Your task to perform on an android device: delete browsing data in the chrome app Image 0: 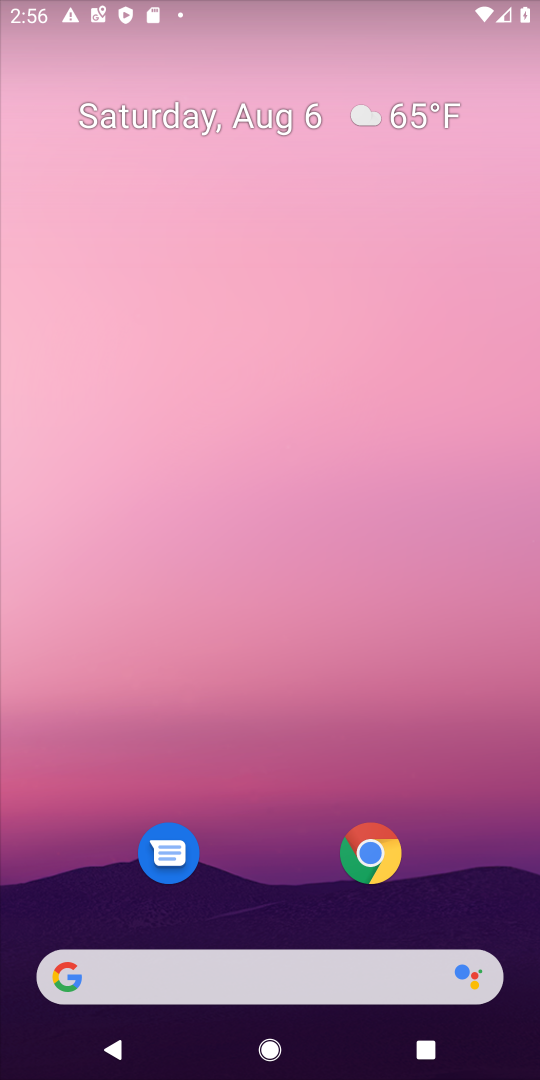
Step 0: press back button
Your task to perform on an android device: delete browsing data in the chrome app Image 1: 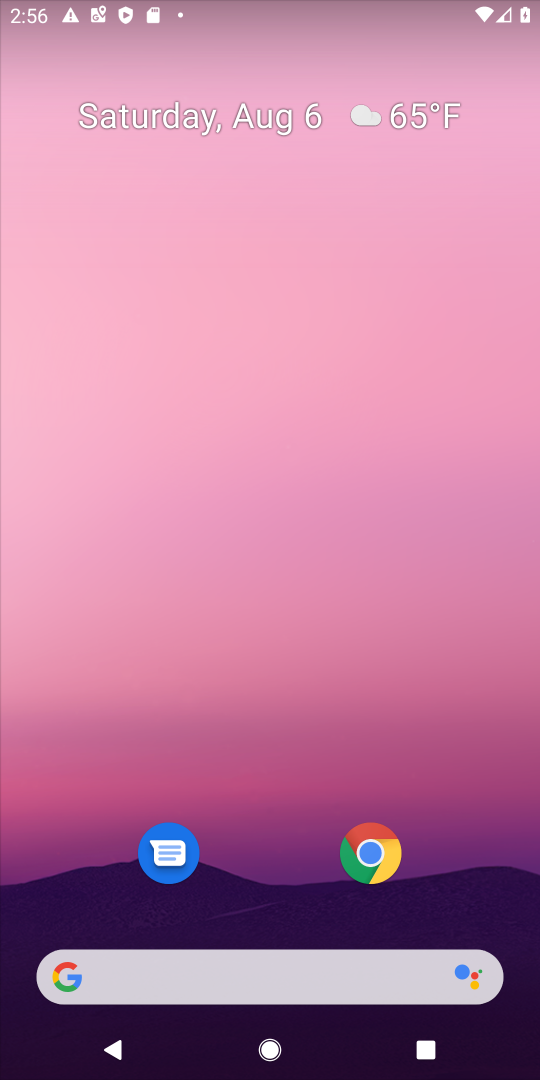
Step 1: click (378, 846)
Your task to perform on an android device: delete browsing data in the chrome app Image 2: 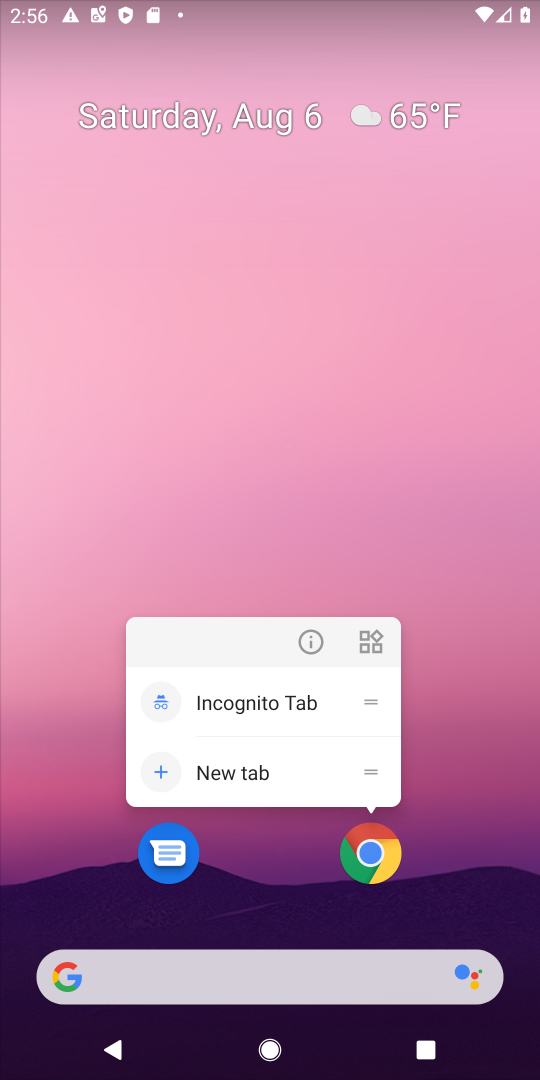
Step 2: click (378, 846)
Your task to perform on an android device: delete browsing data in the chrome app Image 3: 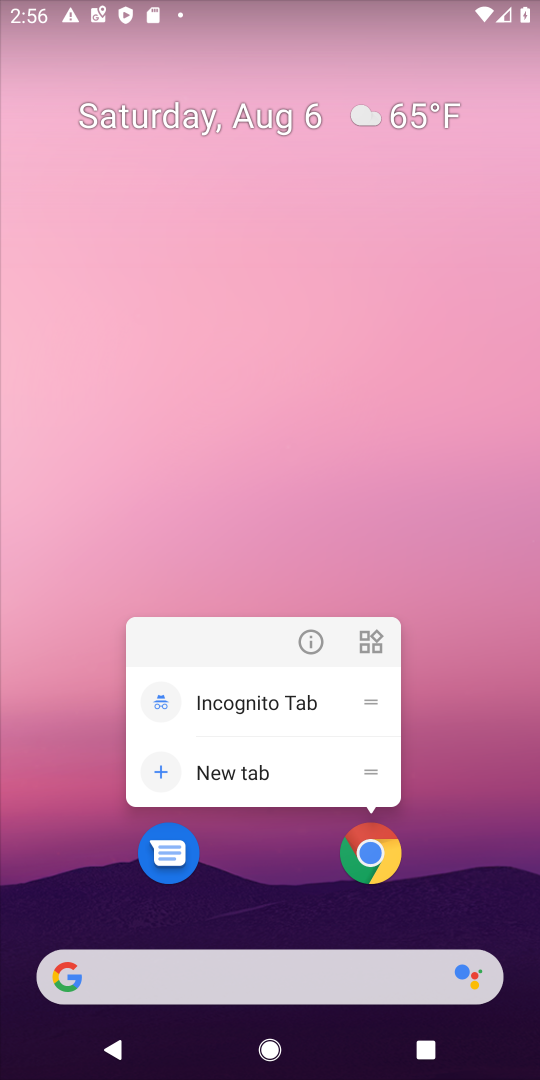
Step 3: click (373, 855)
Your task to perform on an android device: delete browsing data in the chrome app Image 4: 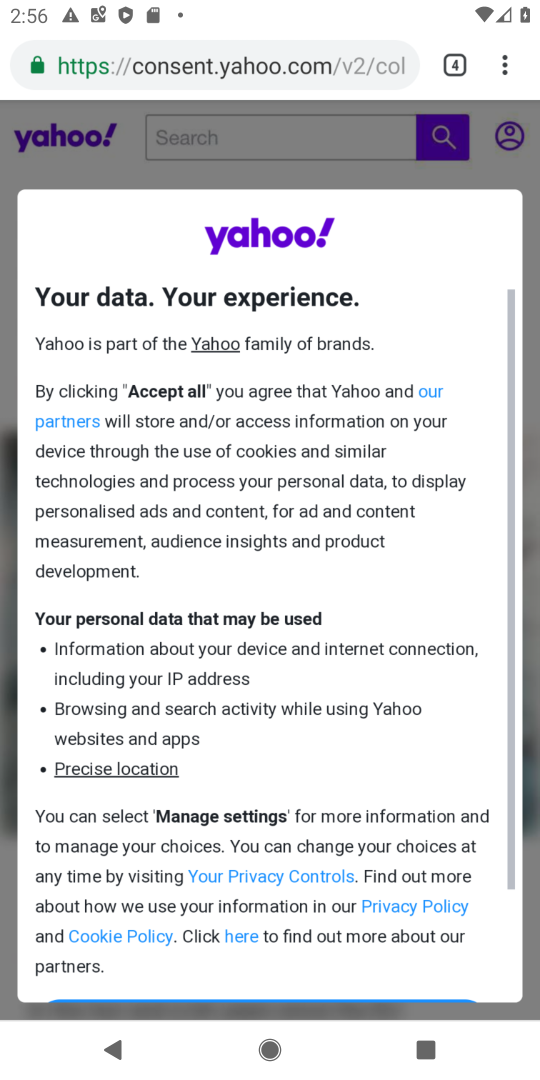
Step 4: drag from (504, 66) to (294, 373)
Your task to perform on an android device: delete browsing data in the chrome app Image 5: 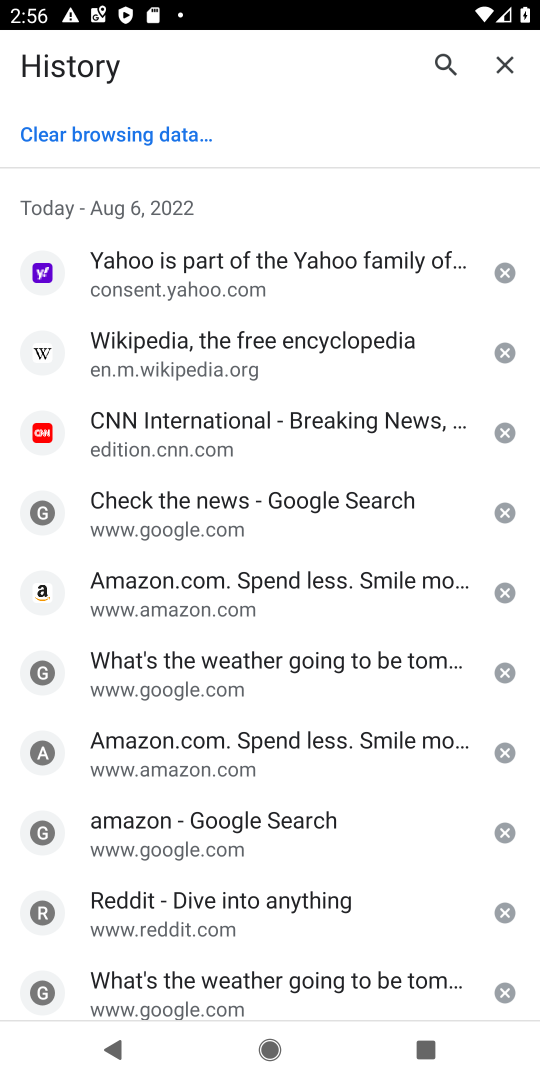
Step 5: click (84, 129)
Your task to perform on an android device: delete browsing data in the chrome app Image 6: 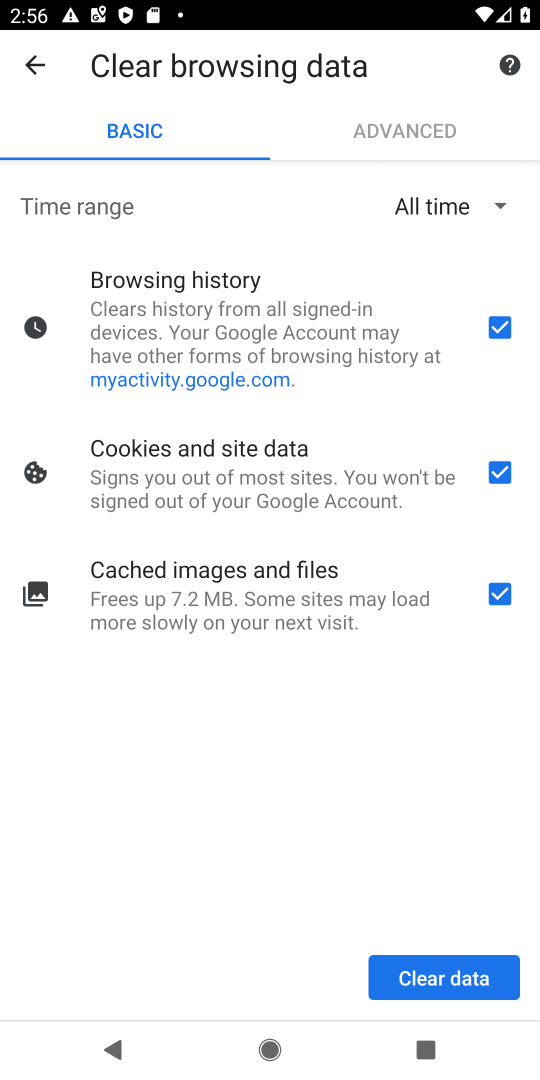
Step 6: click (411, 980)
Your task to perform on an android device: delete browsing data in the chrome app Image 7: 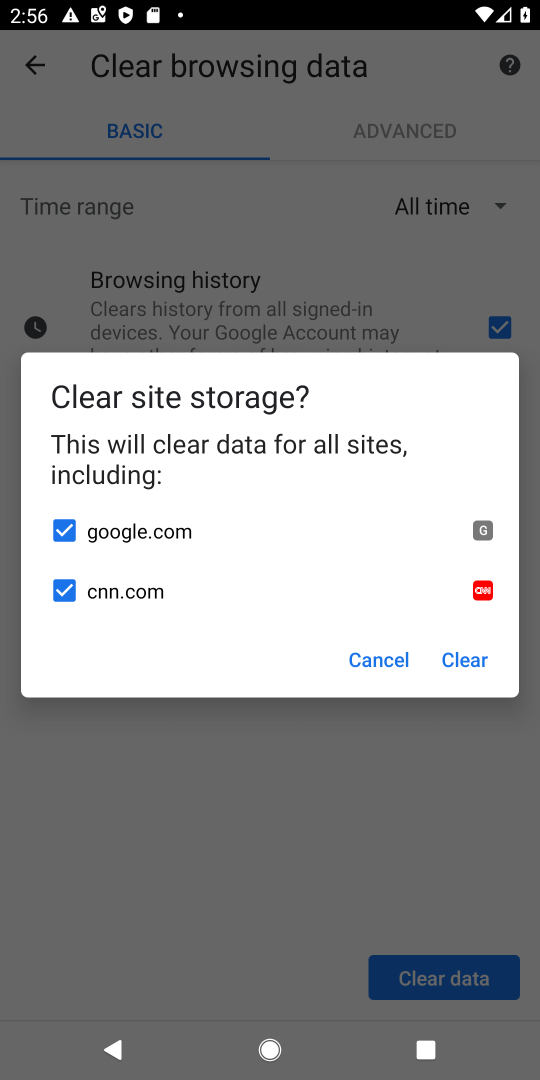
Step 7: click (462, 648)
Your task to perform on an android device: delete browsing data in the chrome app Image 8: 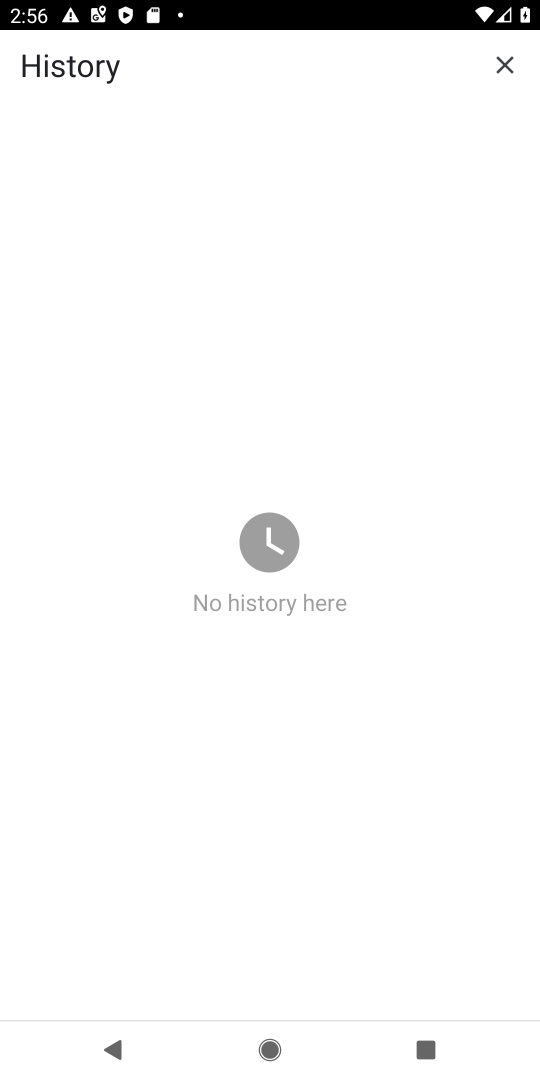
Step 8: task complete